Your task to perform on an android device: Go to ESPN.com Image 0: 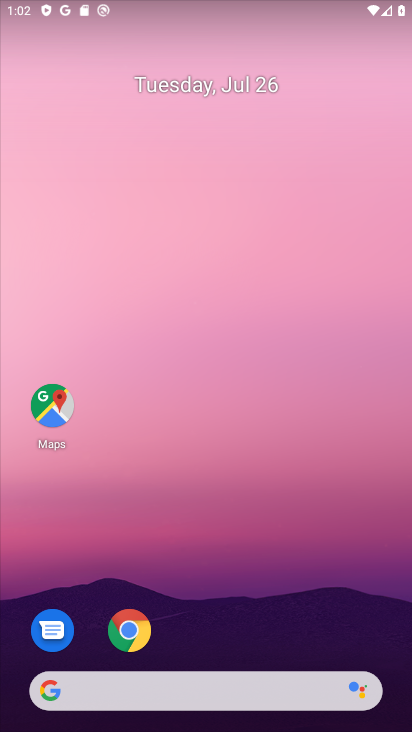
Step 0: drag from (291, 581) to (362, 68)
Your task to perform on an android device: Go to ESPN.com Image 1: 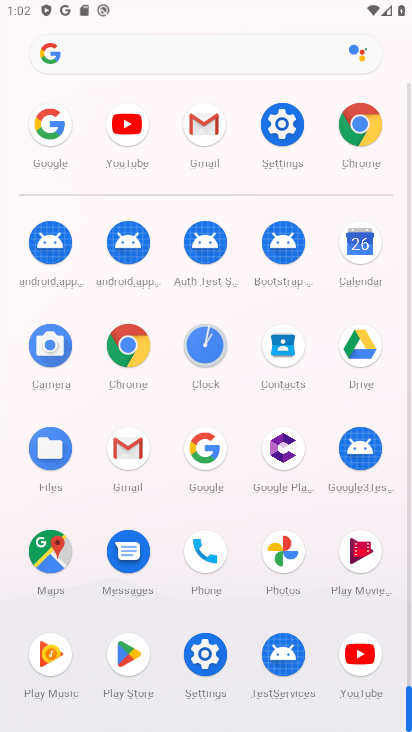
Step 1: click (371, 125)
Your task to perform on an android device: Go to ESPN.com Image 2: 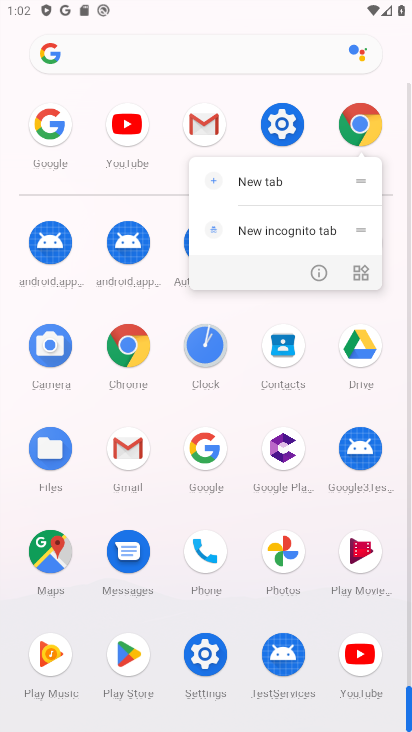
Step 2: click (349, 133)
Your task to perform on an android device: Go to ESPN.com Image 3: 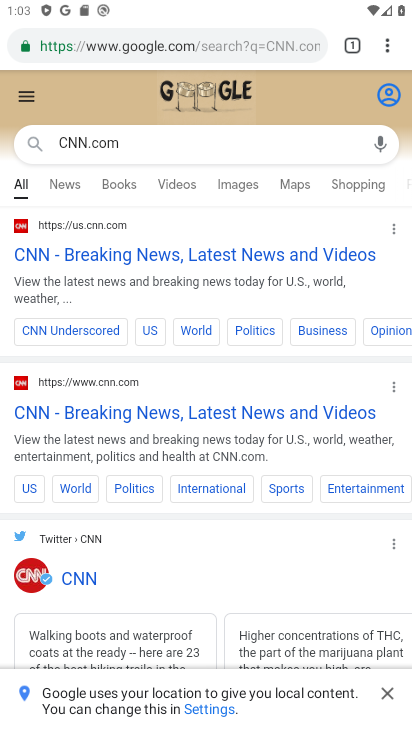
Step 3: click (152, 144)
Your task to perform on an android device: Go to ESPN.com Image 4: 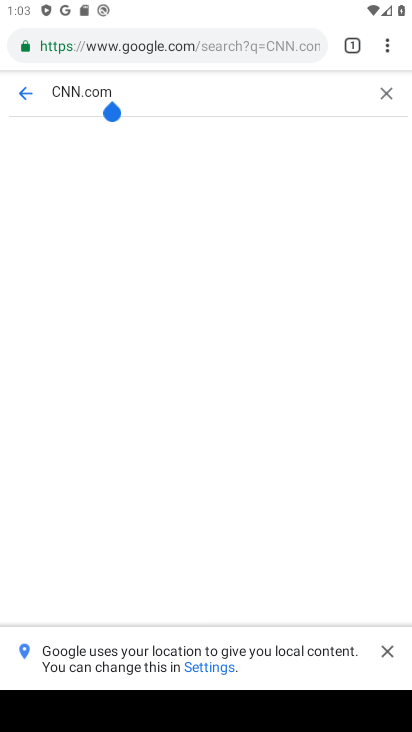
Step 4: click (377, 101)
Your task to perform on an android device: Go to ESPN.com Image 5: 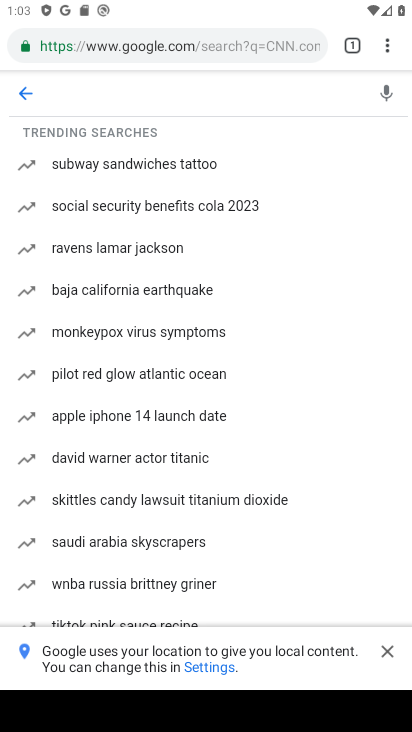
Step 5: click (279, 58)
Your task to perform on an android device: Go to ESPN.com Image 6: 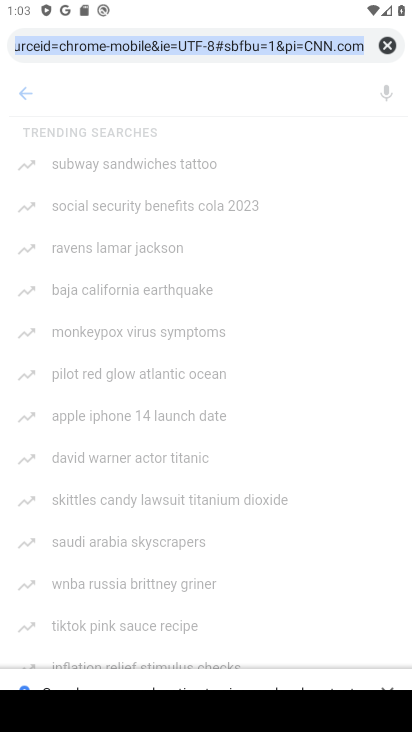
Step 6: click (386, 47)
Your task to perform on an android device: Go to ESPN.com Image 7: 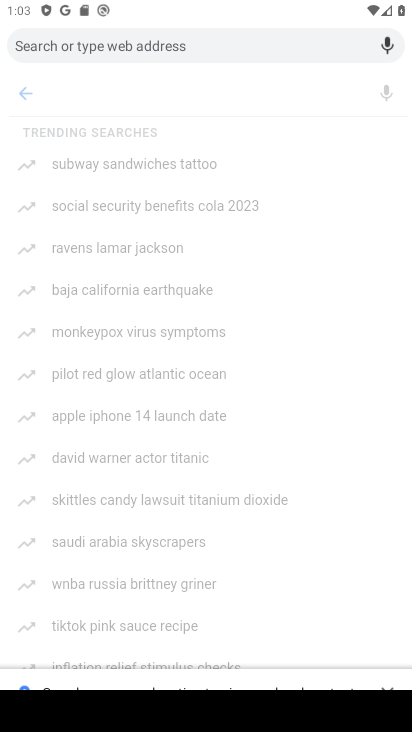
Step 7: type " ESPN.com"
Your task to perform on an android device: Go to ESPN.com Image 8: 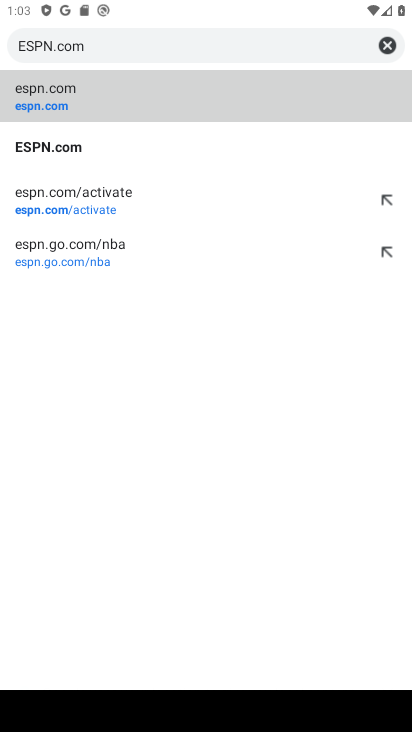
Step 8: click (44, 99)
Your task to perform on an android device: Go to ESPN.com Image 9: 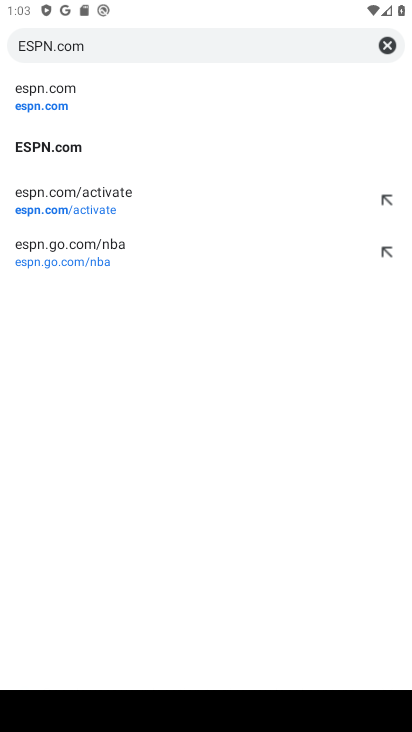
Step 9: click (54, 151)
Your task to perform on an android device: Go to ESPN.com Image 10: 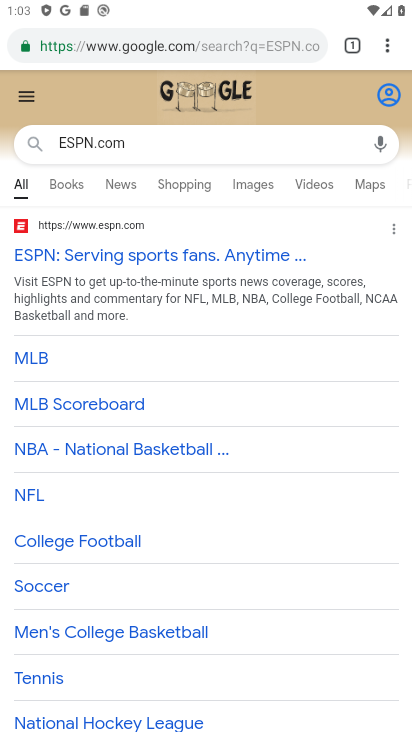
Step 10: click (14, 249)
Your task to perform on an android device: Go to ESPN.com Image 11: 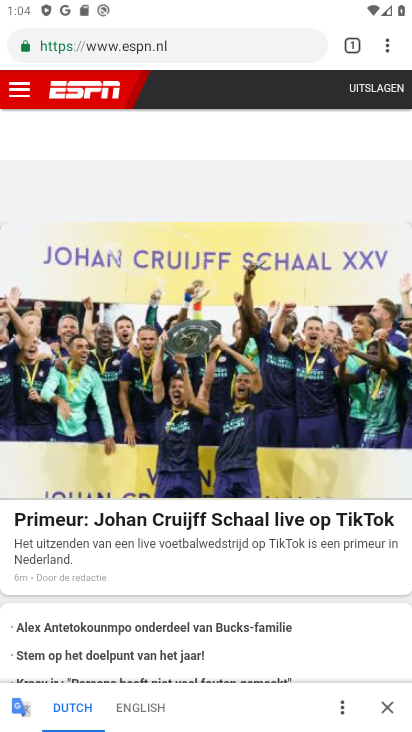
Step 11: task complete